Your task to perform on an android device: Go to Maps Image 0: 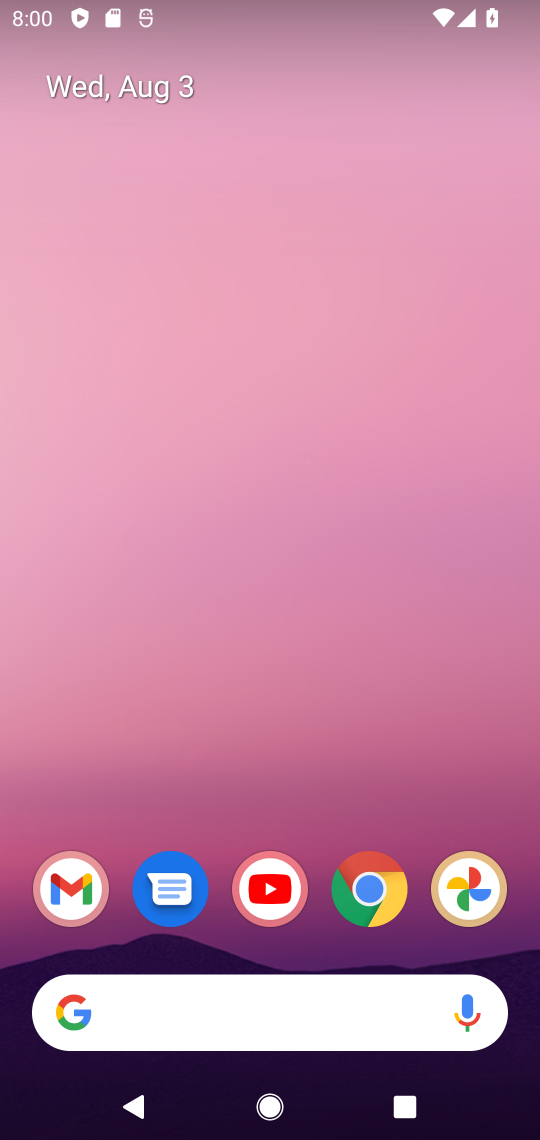
Step 0: drag from (410, 777) to (326, 0)
Your task to perform on an android device: Go to Maps Image 1: 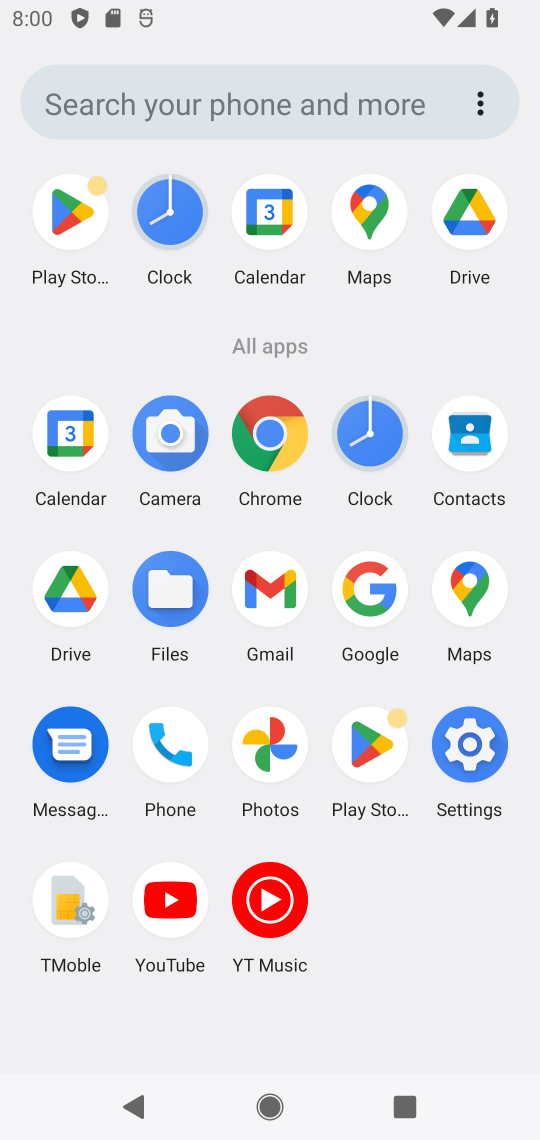
Step 1: click (371, 228)
Your task to perform on an android device: Go to Maps Image 2: 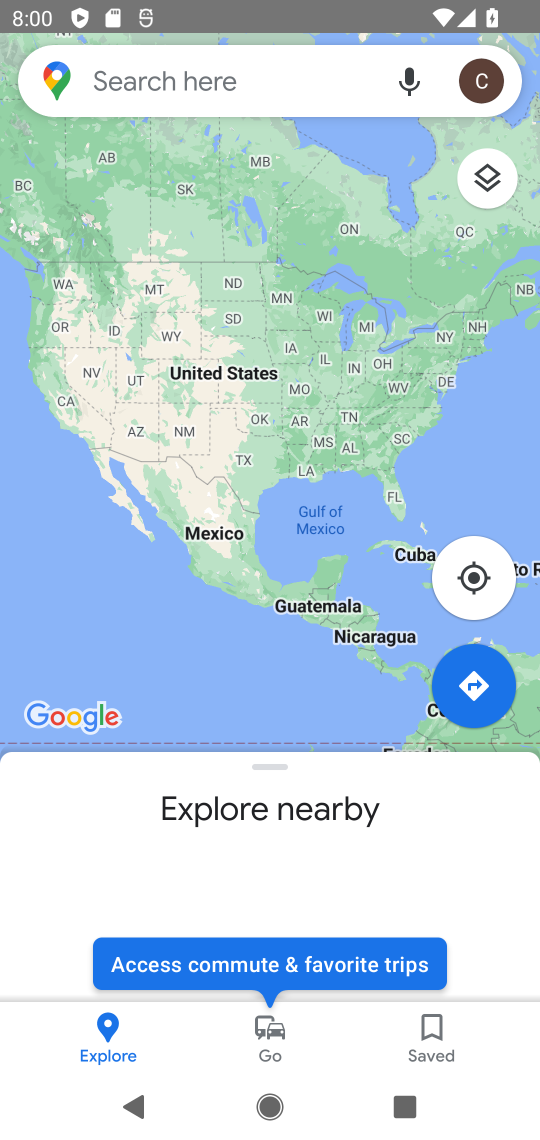
Step 2: task complete